Your task to perform on an android device: Open Youtube and go to the subscriptions tab Image 0: 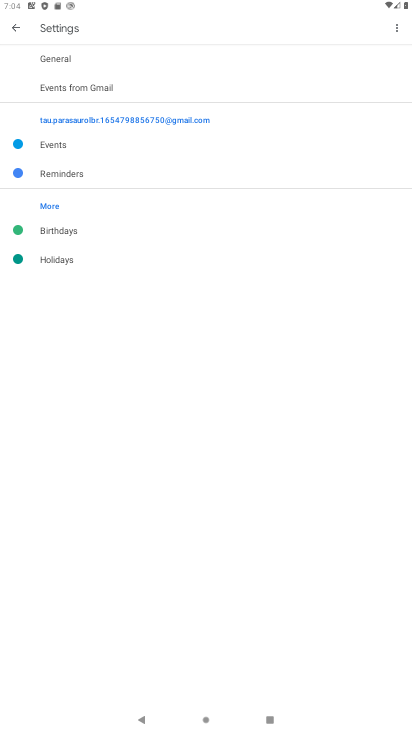
Step 0: press home button
Your task to perform on an android device: Open Youtube and go to the subscriptions tab Image 1: 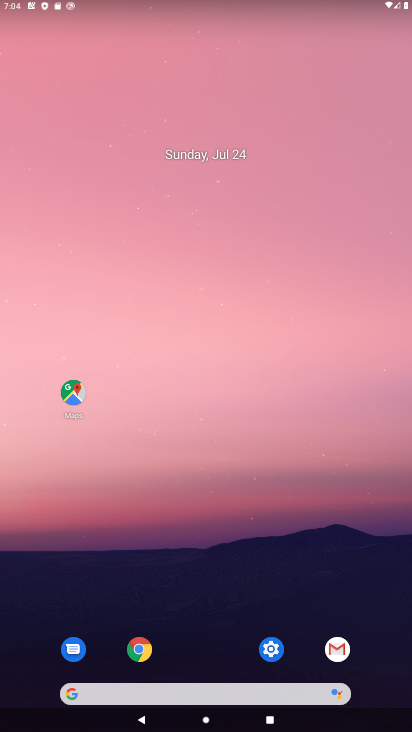
Step 1: drag from (320, 712) to (232, 278)
Your task to perform on an android device: Open Youtube and go to the subscriptions tab Image 2: 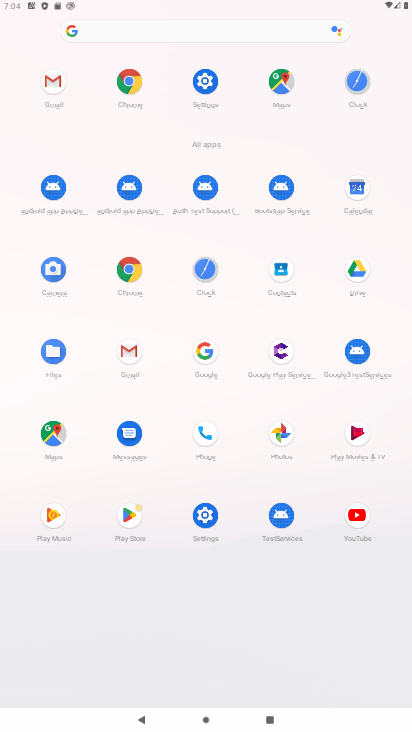
Step 2: click (356, 512)
Your task to perform on an android device: Open Youtube and go to the subscriptions tab Image 3: 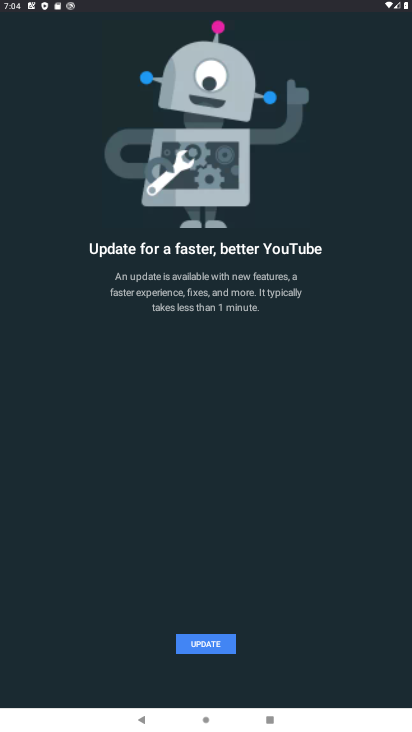
Step 3: click (207, 650)
Your task to perform on an android device: Open Youtube and go to the subscriptions tab Image 4: 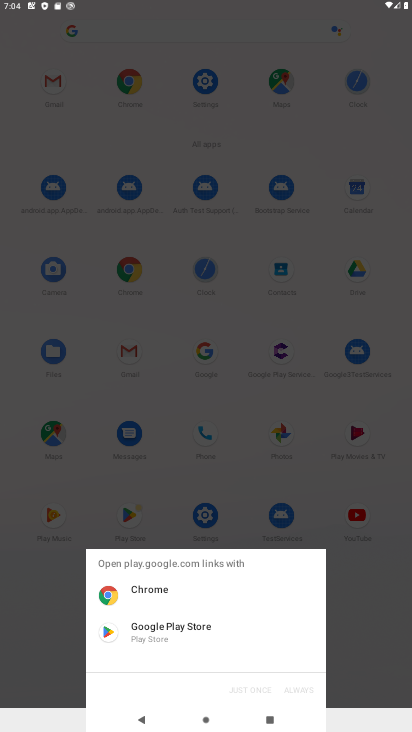
Step 4: click (198, 614)
Your task to perform on an android device: Open Youtube and go to the subscriptions tab Image 5: 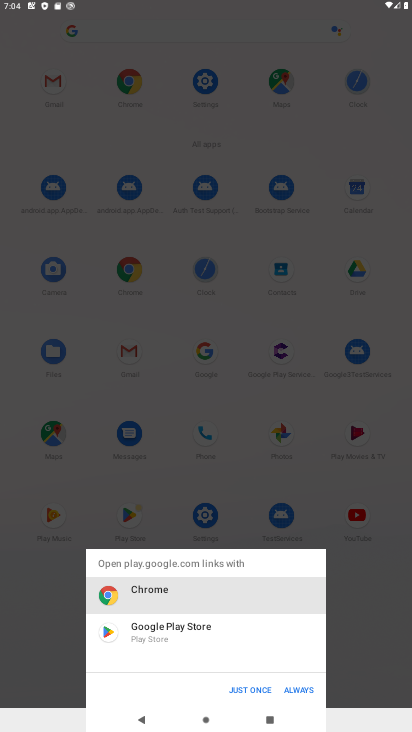
Step 5: click (168, 644)
Your task to perform on an android device: Open Youtube and go to the subscriptions tab Image 6: 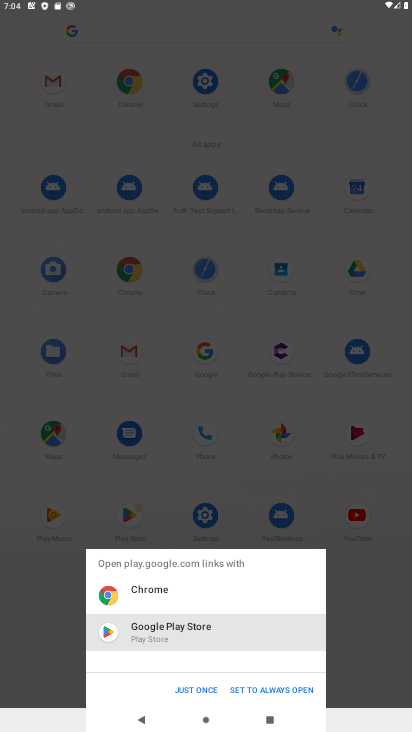
Step 6: click (192, 686)
Your task to perform on an android device: Open Youtube and go to the subscriptions tab Image 7: 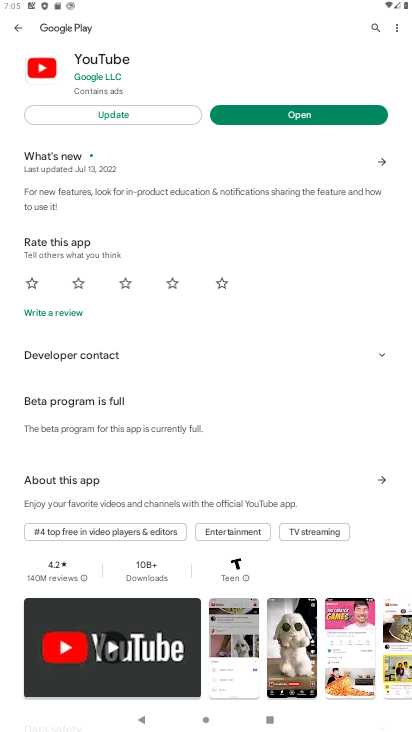
Step 7: click (77, 104)
Your task to perform on an android device: Open Youtube and go to the subscriptions tab Image 8: 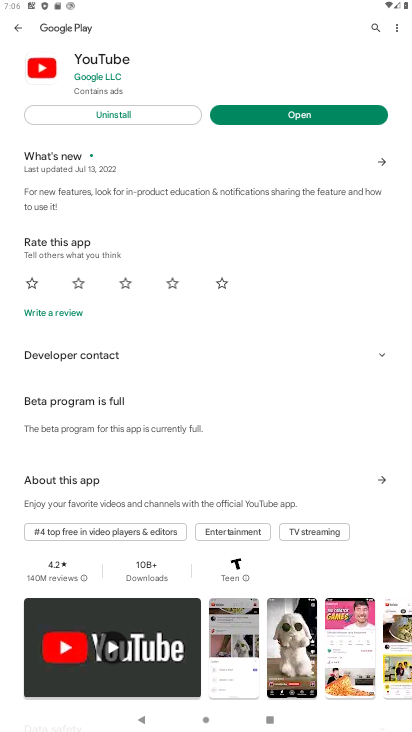
Step 8: click (320, 107)
Your task to perform on an android device: Open Youtube and go to the subscriptions tab Image 9: 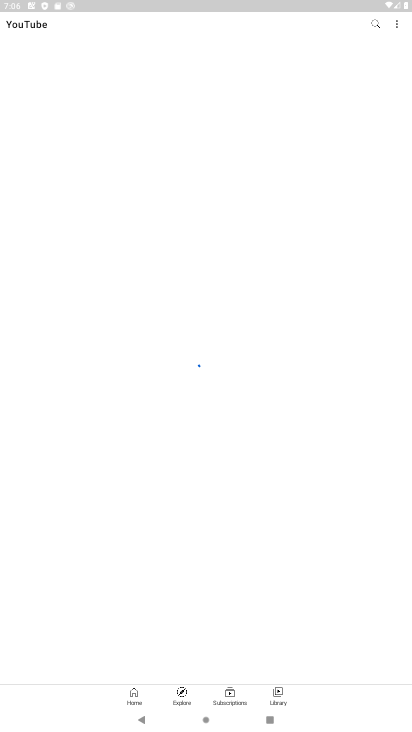
Step 9: click (240, 700)
Your task to perform on an android device: Open Youtube and go to the subscriptions tab Image 10: 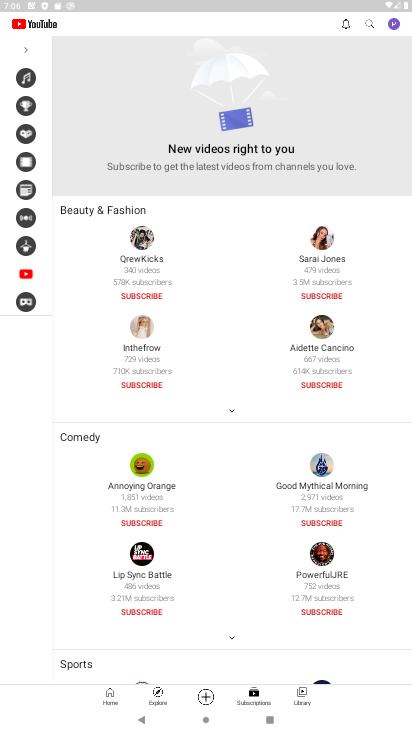
Step 10: task complete